Your task to perform on an android device: Go to Google maps Image 0: 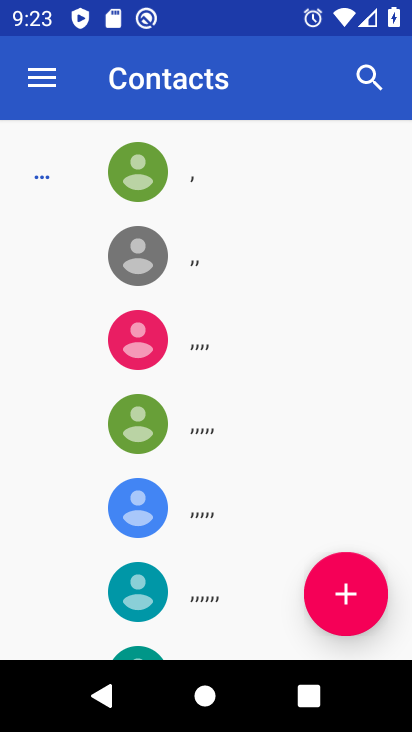
Step 0: press home button
Your task to perform on an android device: Go to Google maps Image 1: 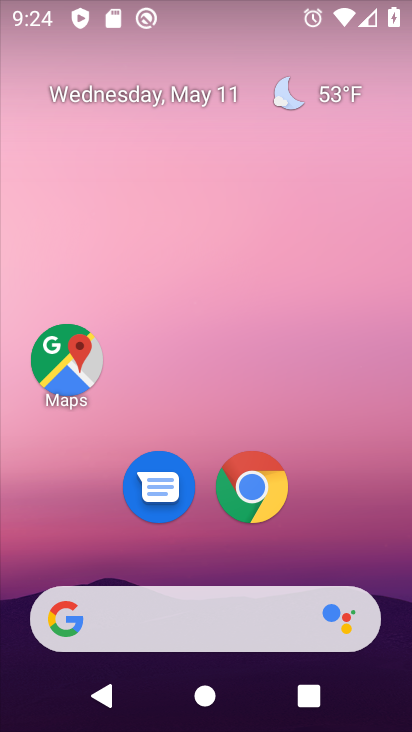
Step 1: click (63, 371)
Your task to perform on an android device: Go to Google maps Image 2: 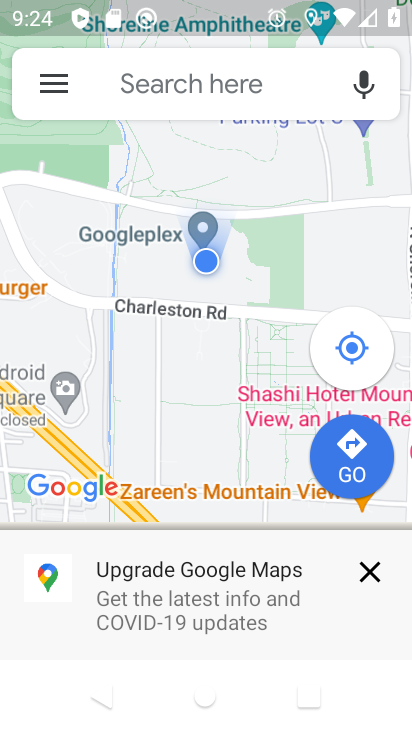
Step 2: task complete